Your task to perform on an android device: Open Google Chrome and click the shortcut for Amazon.com Image 0: 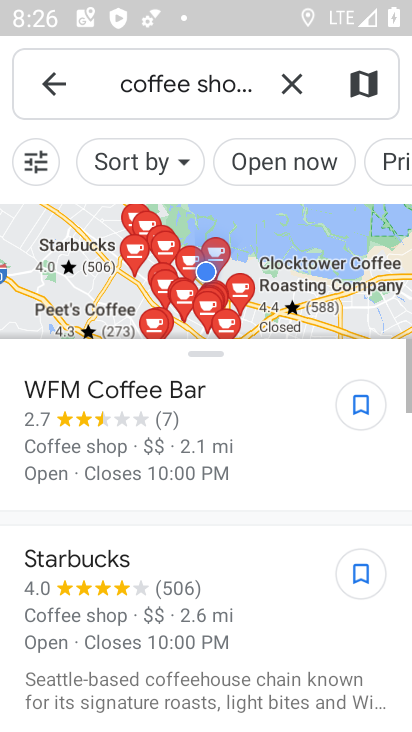
Step 0: press home button
Your task to perform on an android device: Open Google Chrome and click the shortcut for Amazon.com Image 1: 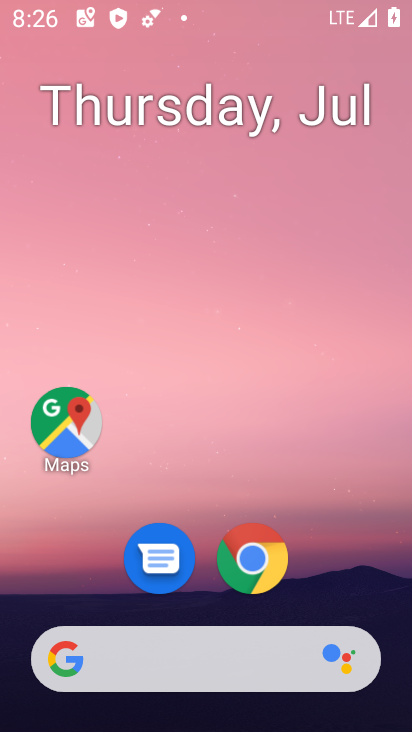
Step 1: drag from (177, 668) to (163, 166)
Your task to perform on an android device: Open Google Chrome and click the shortcut for Amazon.com Image 2: 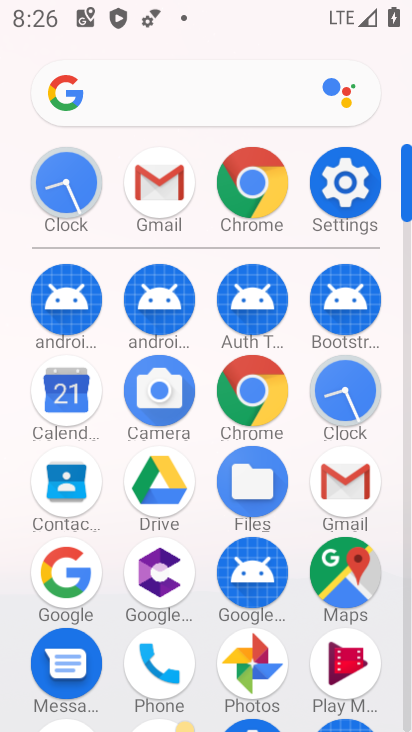
Step 2: click (254, 204)
Your task to perform on an android device: Open Google Chrome and click the shortcut for Amazon.com Image 3: 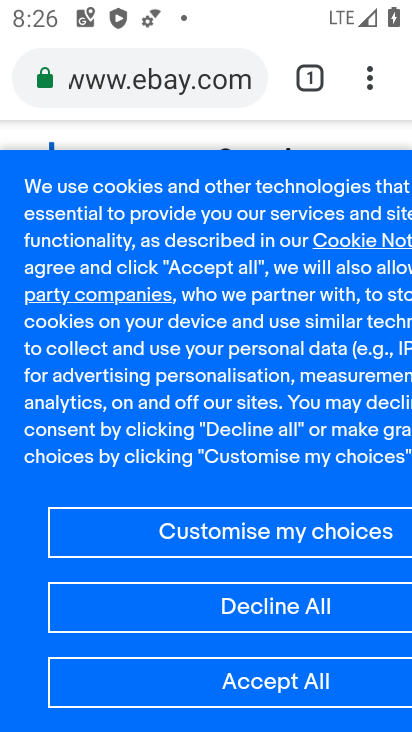
Step 3: click (357, 78)
Your task to perform on an android device: Open Google Chrome and click the shortcut for Amazon.com Image 4: 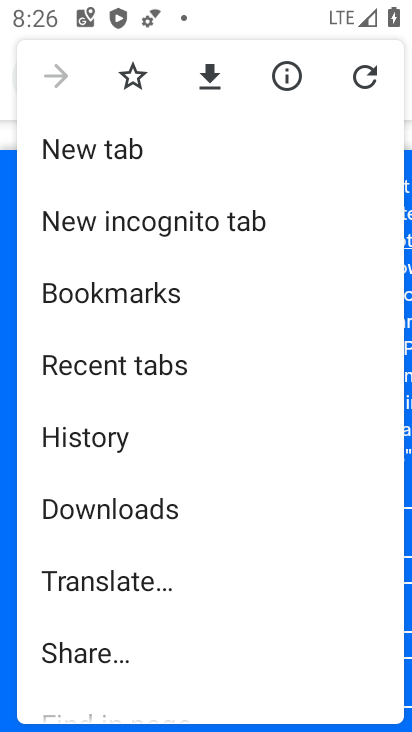
Step 4: click (6, 108)
Your task to perform on an android device: Open Google Chrome and click the shortcut for Amazon.com Image 5: 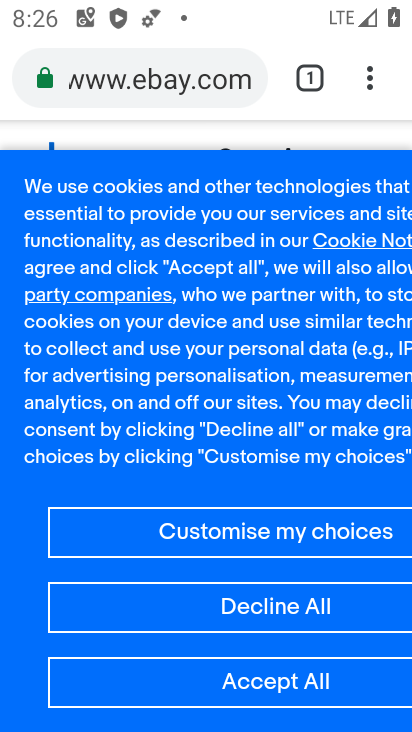
Step 5: drag from (312, 76) to (273, 292)
Your task to perform on an android device: Open Google Chrome and click the shortcut for Amazon.com Image 6: 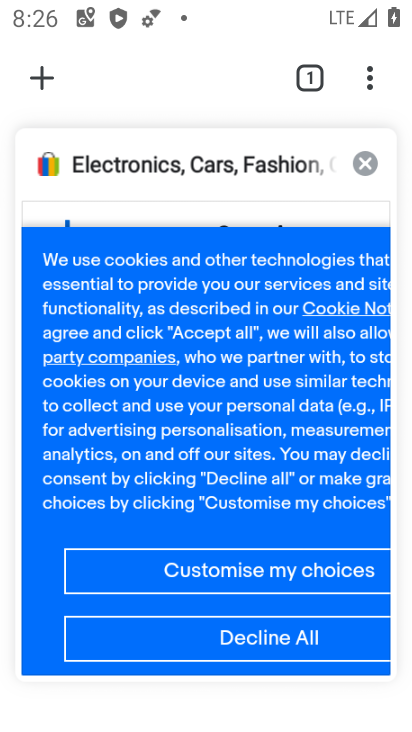
Step 6: click (55, 70)
Your task to perform on an android device: Open Google Chrome and click the shortcut for Amazon.com Image 7: 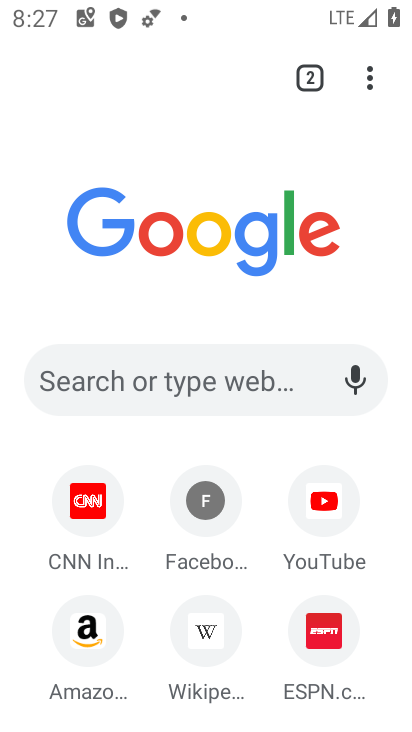
Step 7: click (95, 643)
Your task to perform on an android device: Open Google Chrome and click the shortcut for Amazon.com Image 8: 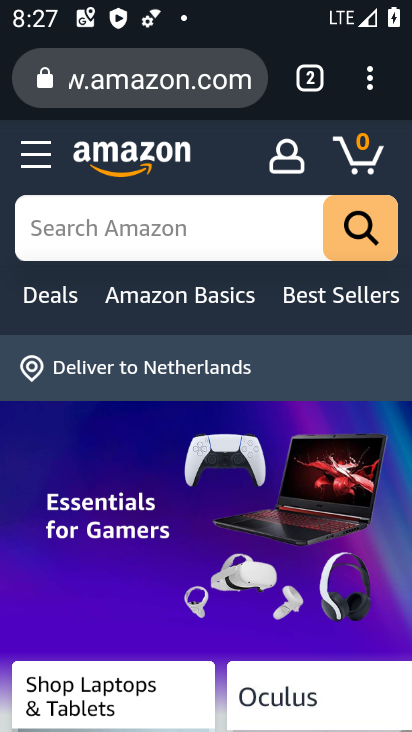
Step 8: task complete